Your task to perform on an android device: What is the recent news? Image 0: 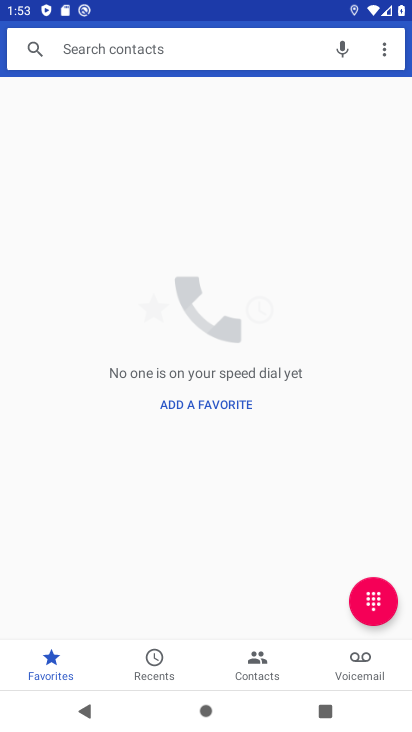
Step 0: press home button
Your task to perform on an android device: What is the recent news? Image 1: 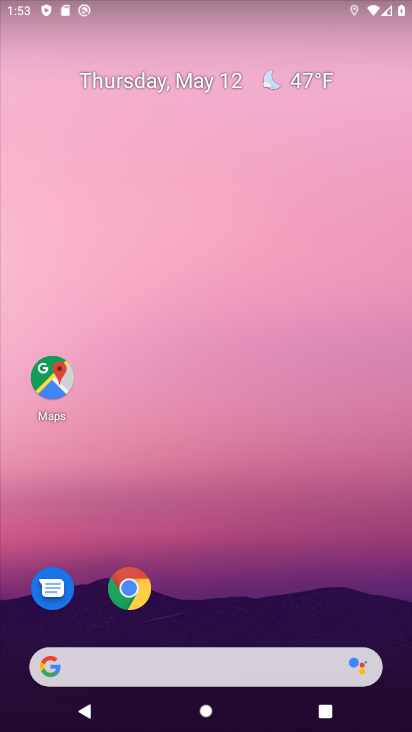
Step 1: drag from (398, 656) to (306, 78)
Your task to perform on an android device: What is the recent news? Image 2: 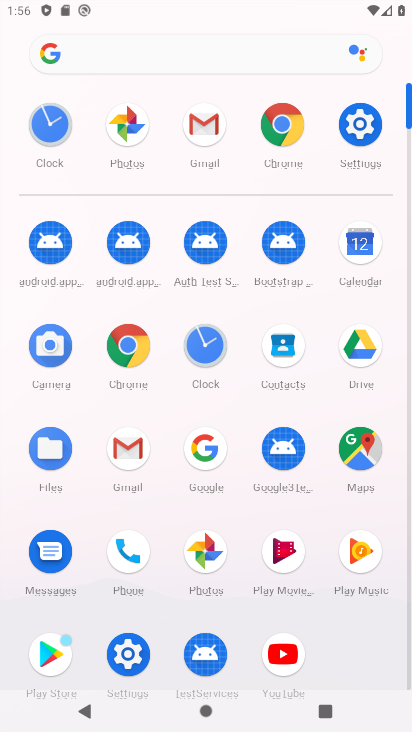
Step 2: click (130, 371)
Your task to perform on an android device: What is the recent news? Image 3: 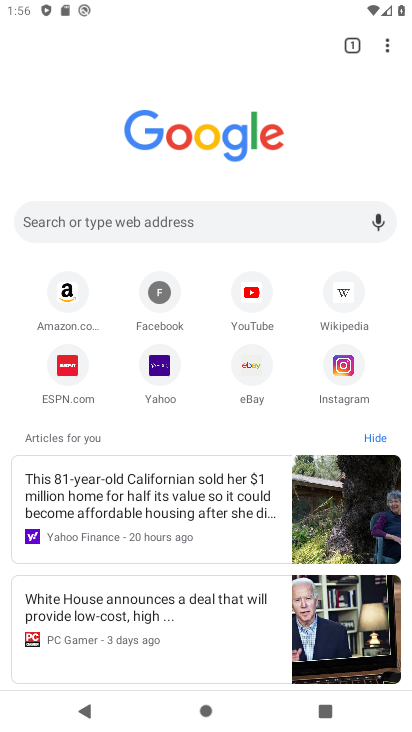
Step 3: click (165, 518)
Your task to perform on an android device: What is the recent news? Image 4: 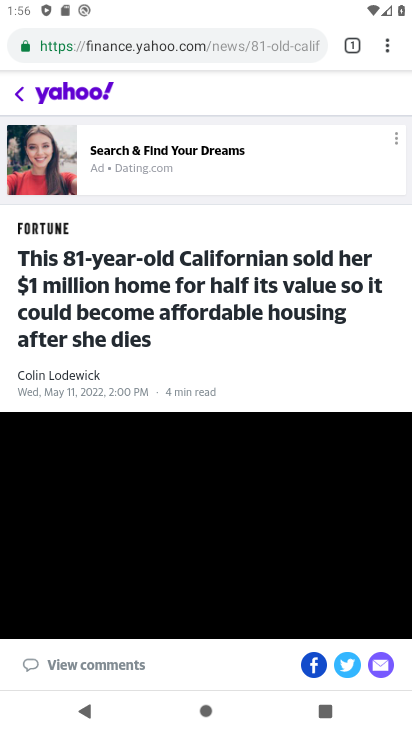
Step 4: task complete